Your task to perform on an android device: What's the weather today? Image 0: 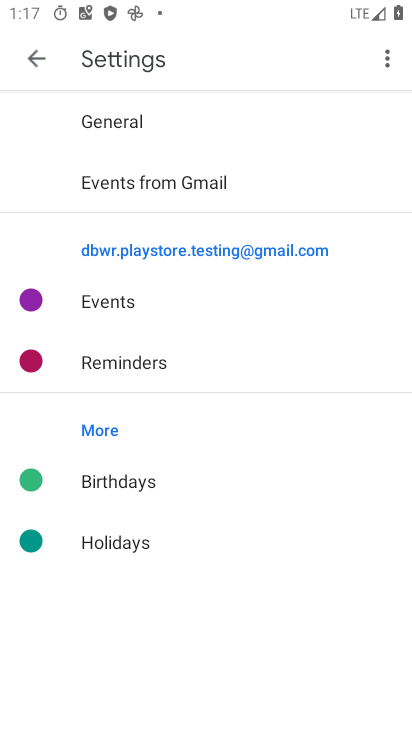
Step 0: press home button
Your task to perform on an android device: What's the weather today? Image 1: 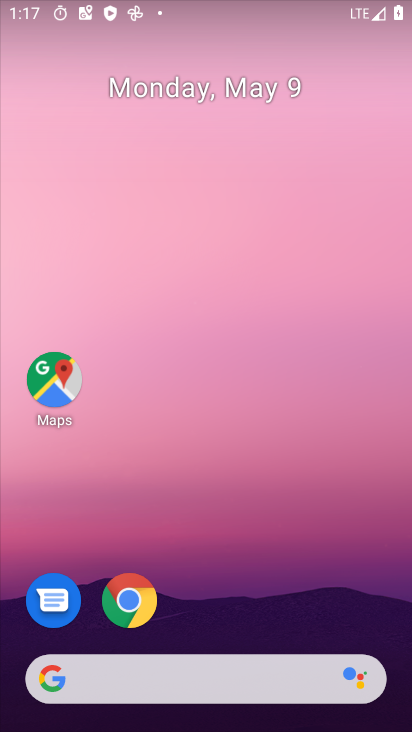
Step 1: drag from (326, 591) to (326, 125)
Your task to perform on an android device: What's the weather today? Image 2: 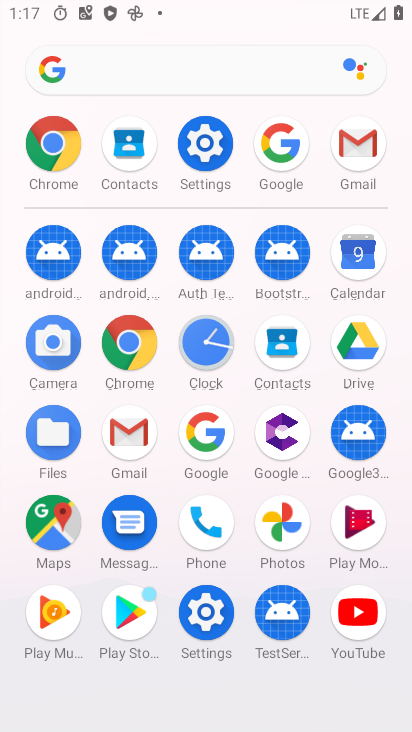
Step 2: click (204, 443)
Your task to perform on an android device: What's the weather today? Image 3: 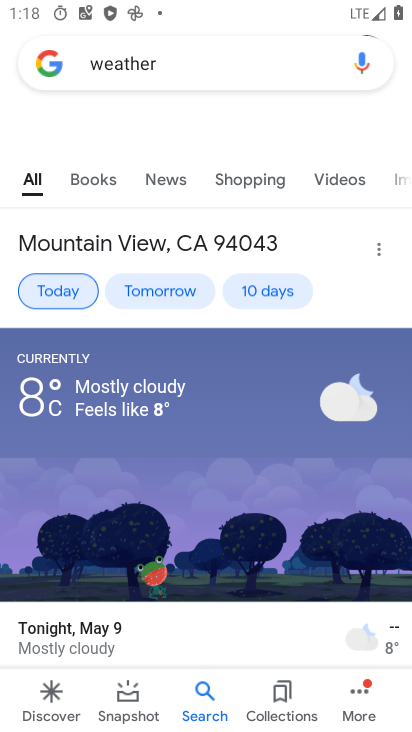
Step 3: task complete